Your task to perform on an android device: check out phone information Image 0: 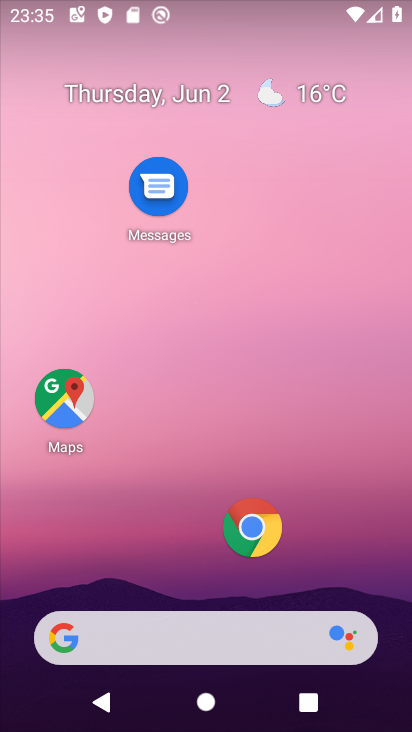
Step 0: press home button
Your task to perform on an android device: check out phone information Image 1: 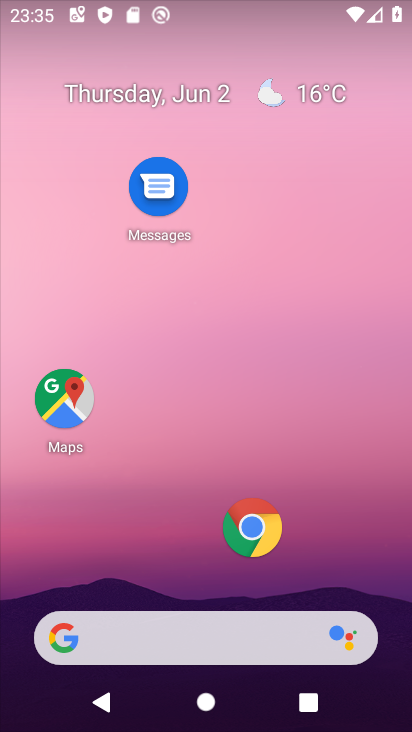
Step 1: drag from (213, 583) to (275, 16)
Your task to perform on an android device: check out phone information Image 2: 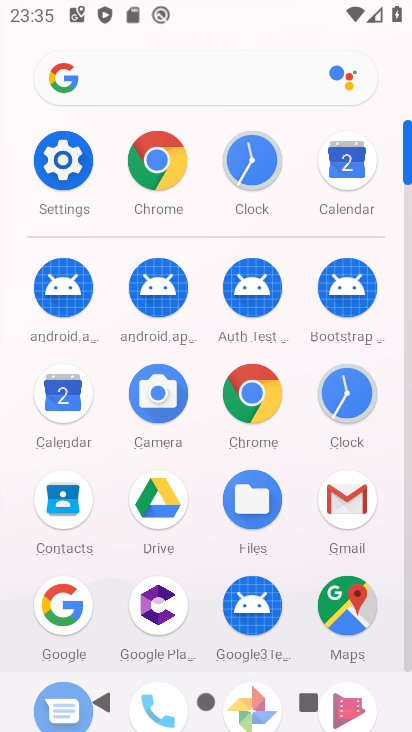
Step 2: drag from (204, 649) to (256, 154)
Your task to perform on an android device: check out phone information Image 3: 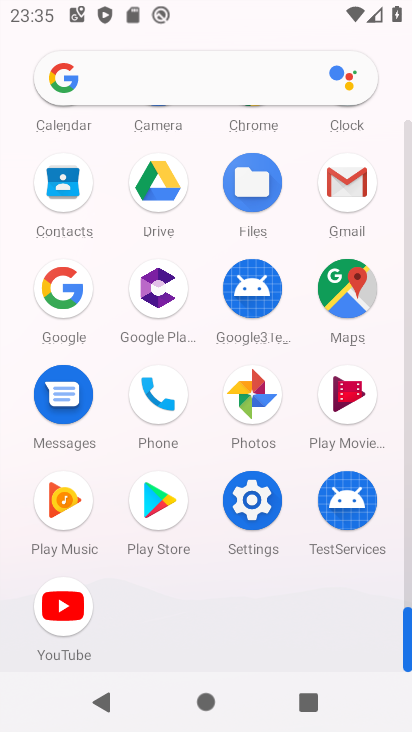
Step 3: click (251, 493)
Your task to perform on an android device: check out phone information Image 4: 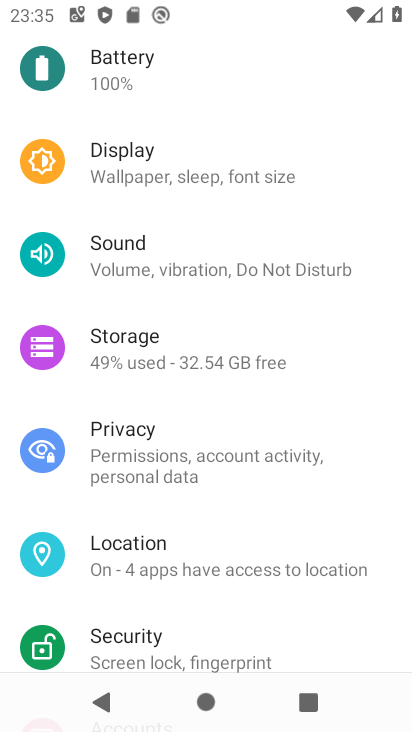
Step 4: drag from (235, 638) to (242, 93)
Your task to perform on an android device: check out phone information Image 5: 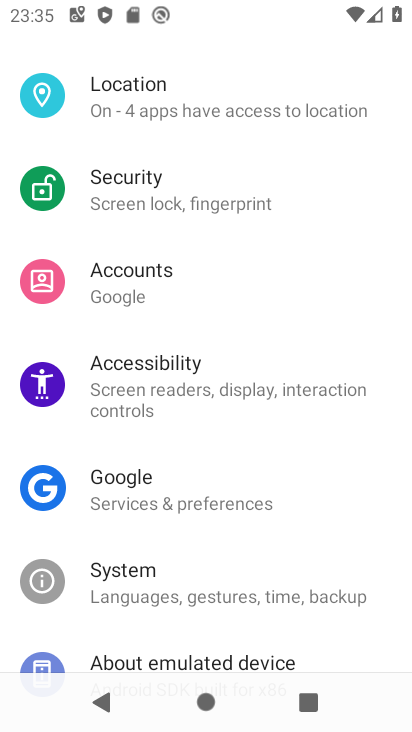
Step 5: click (299, 654)
Your task to perform on an android device: check out phone information Image 6: 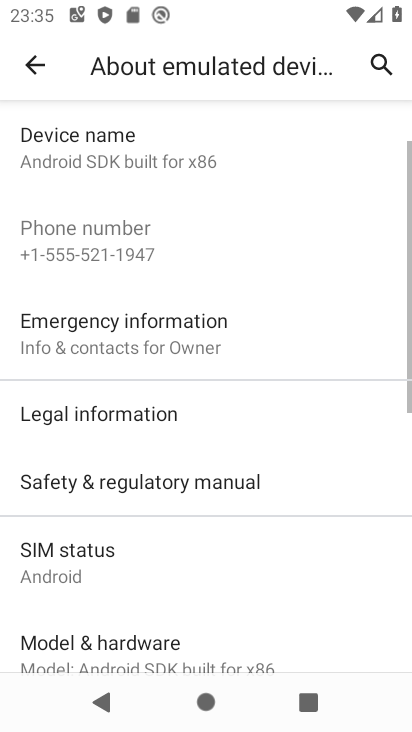
Step 6: task complete